Your task to perform on an android device: Empty the shopping cart on newegg.com. Add usb-a to usb-b to the cart on newegg.com Image 0: 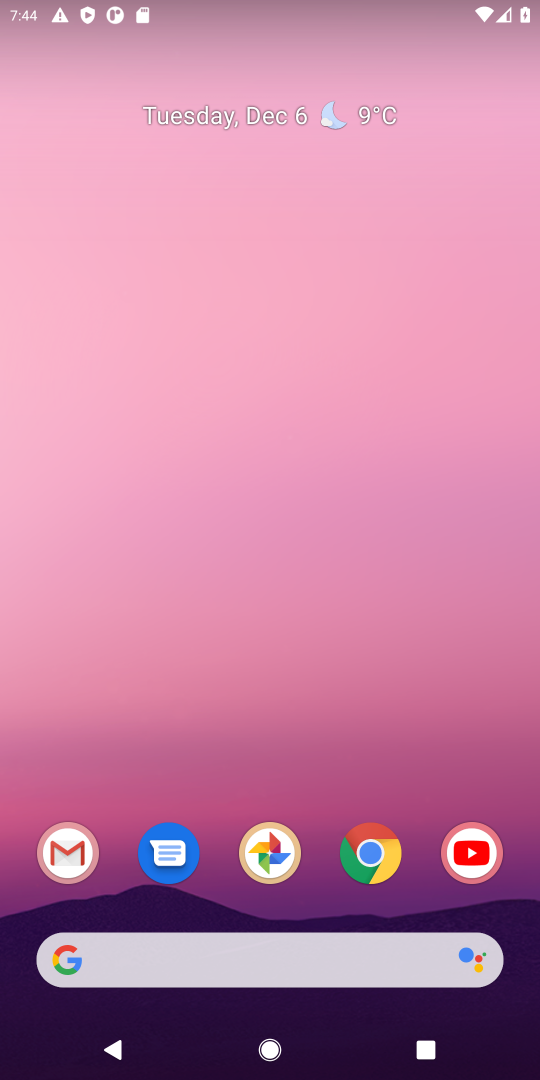
Step 0: click (368, 858)
Your task to perform on an android device: Empty the shopping cart on newegg.com. Add usb-a to usb-b to the cart on newegg.com Image 1: 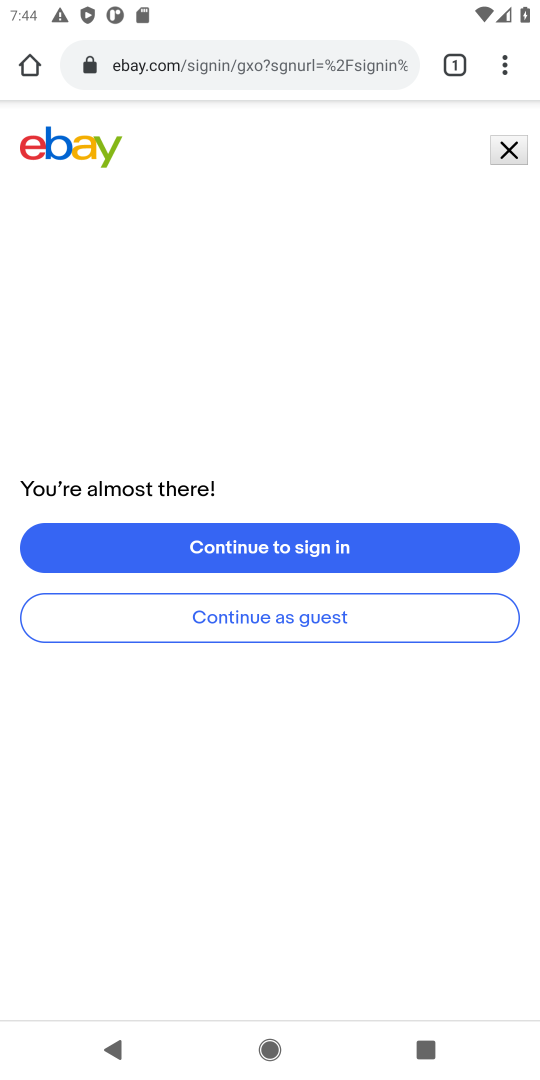
Step 1: click (295, 61)
Your task to perform on an android device: Empty the shopping cart on newegg.com. Add usb-a to usb-b to the cart on newegg.com Image 2: 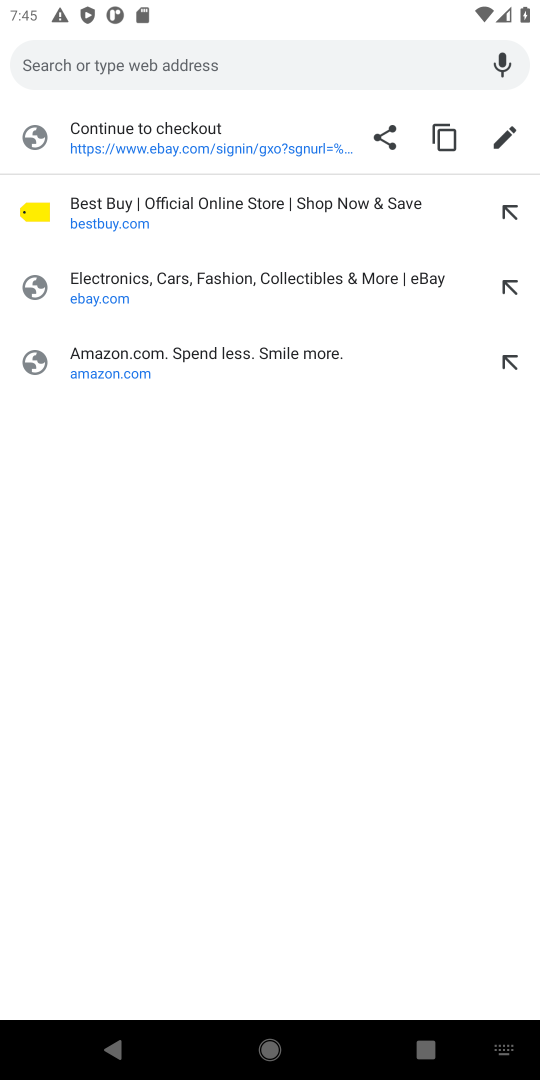
Step 2: type "newegg.com"
Your task to perform on an android device: Empty the shopping cart on newegg.com. Add usb-a to usb-b to the cart on newegg.com Image 3: 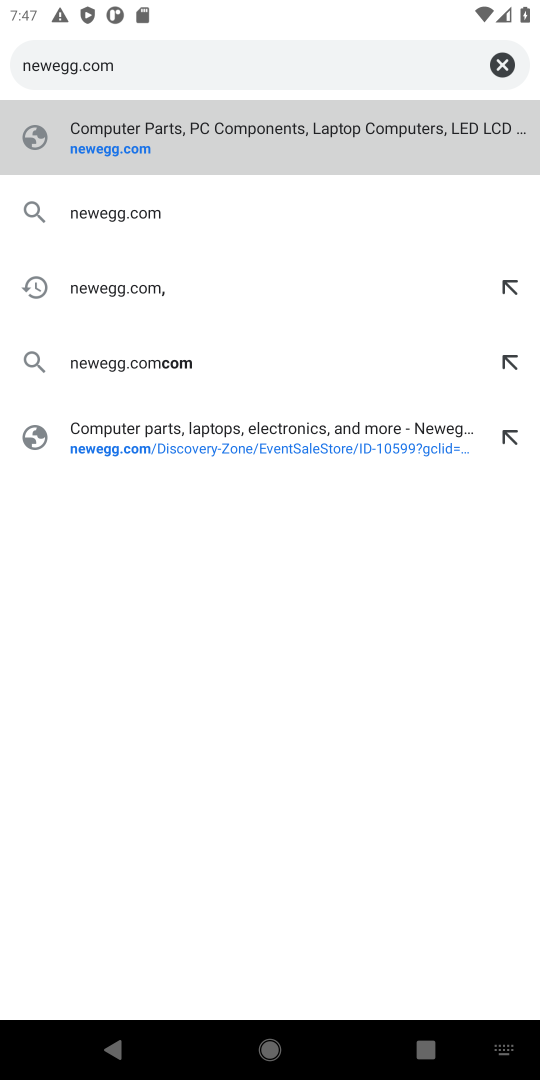
Step 3: click (136, 133)
Your task to perform on an android device: Empty the shopping cart on newegg.com. Add usb-a to usb-b to the cart on newegg.com Image 4: 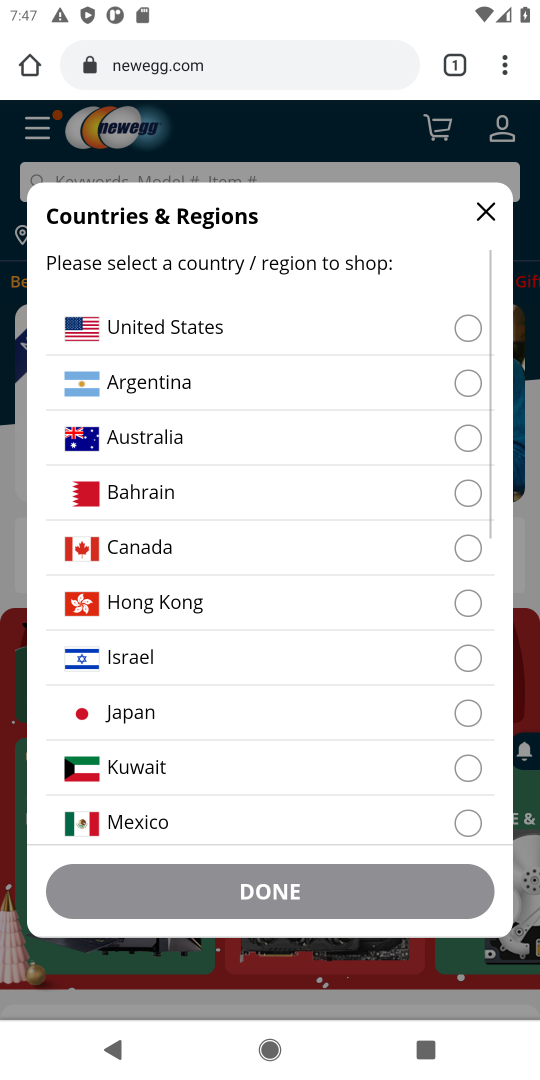
Step 4: click (481, 204)
Your task to perform on an android device: Empty the shopping cart on newegg.com. Add usb-a to usb-b to the cart on newegg.com Image 5: 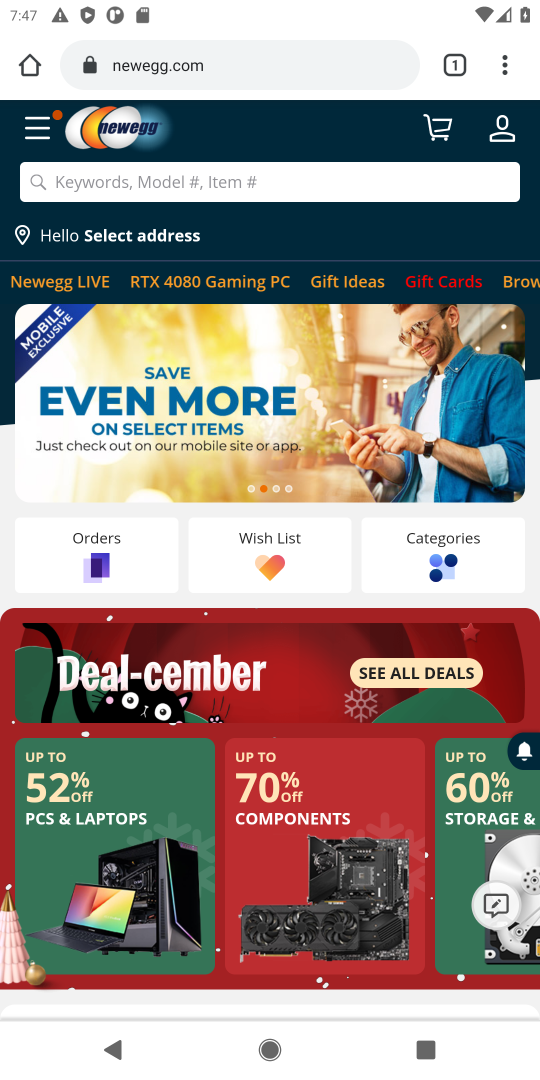
Step 5: click (497, 134)
Your task to perform on an android device: Empty the shopping cart on newegg.com. Add usb-a to usb-b to the cart on newegg.com Image 6: 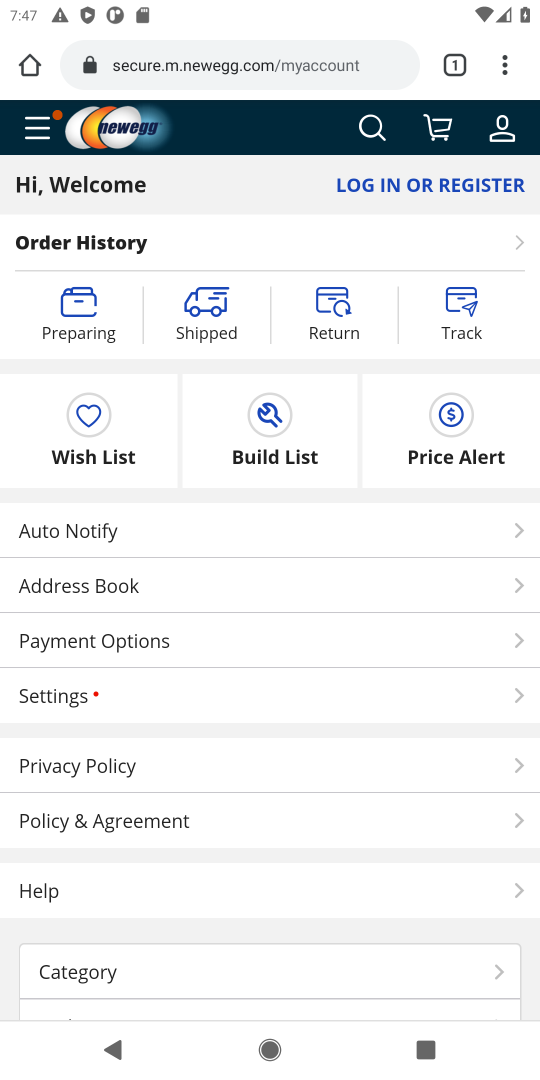
Step 6: click (372, 126)
Your task to perform on an android device: Empty the shopping cart on newegg.com. Add usb-a to usb-b to the cart on newegg.com Image 7: 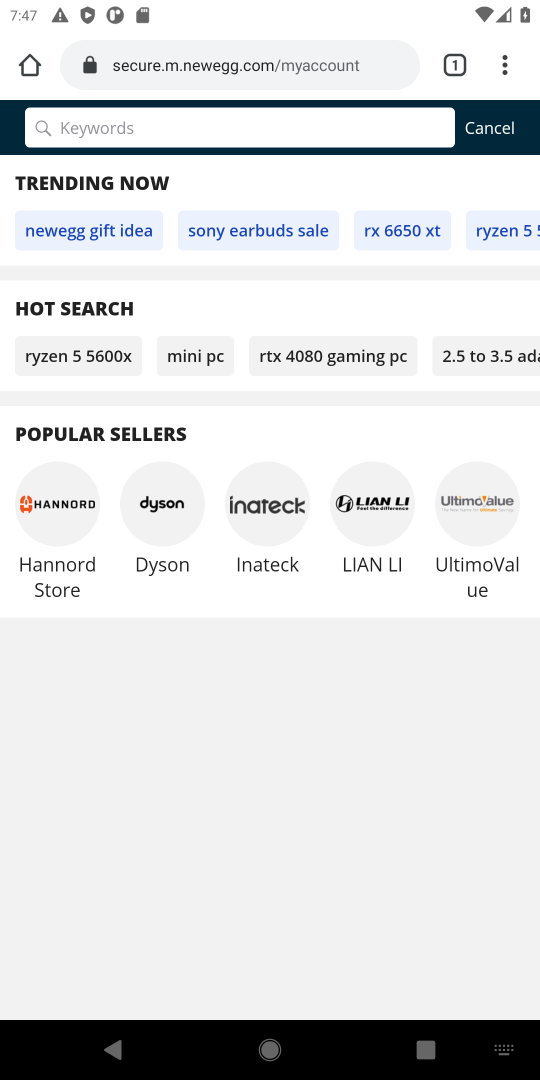
Step 7: type "usb-a"
Your task to perform on an android device: Empty the shopping cart on newegg.com. Add usb-a to usb-b to the cart on newegg.com Image 8: 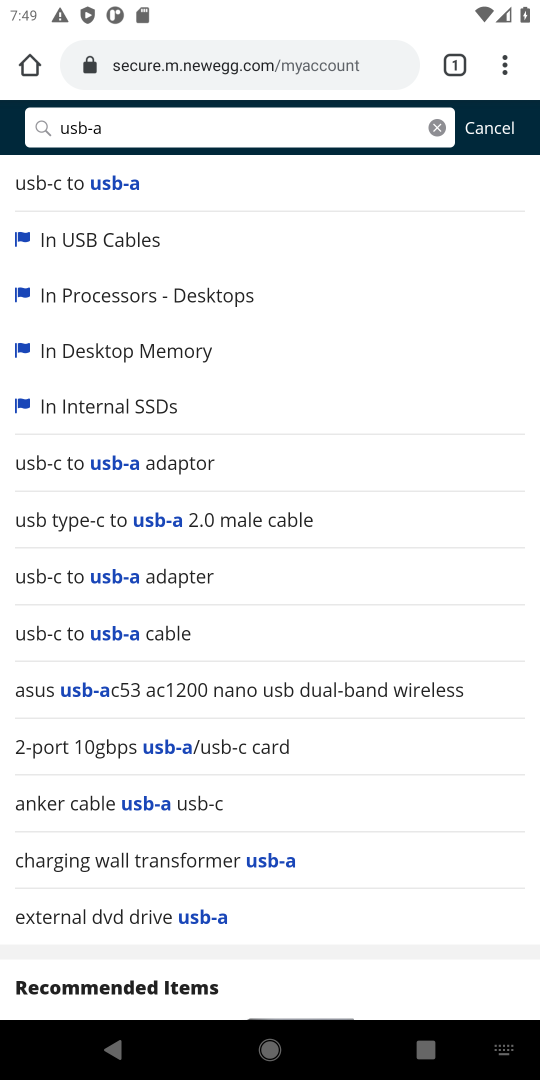
Step 8: click (62, 188)
Your task to perform on an android device: Empty the shopping cart on newegg.com. Add usb-a to usb-b to the cart on newegg.com Image 9: 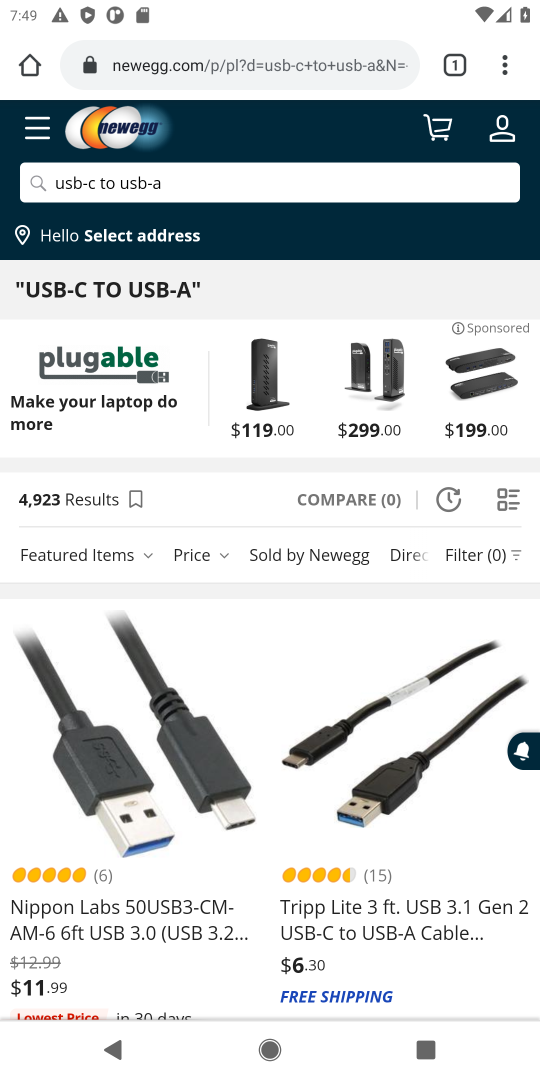
Step 9: click (141, 688)
Your task to perform on an android device: Empty the shopping cart on newegg.com. Add usb-a to usb-b to the cart on newegg.com Image 10: 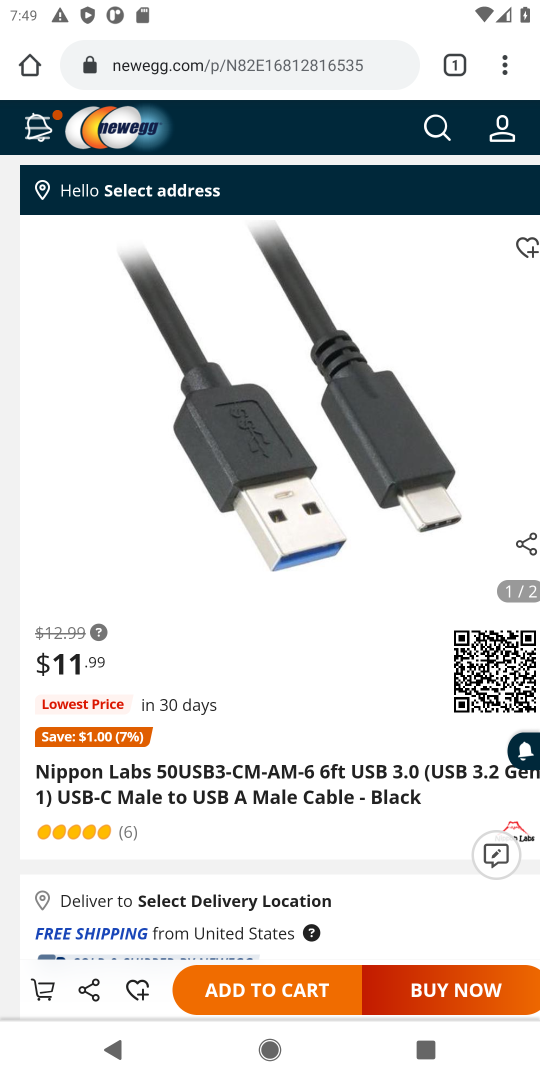
Step 10: click (266, 989)
Your task to perform on an android device: Empty the shopping cart on newegg.com. Add usb-a to usb-b to the cart on newegg.com Image 11: 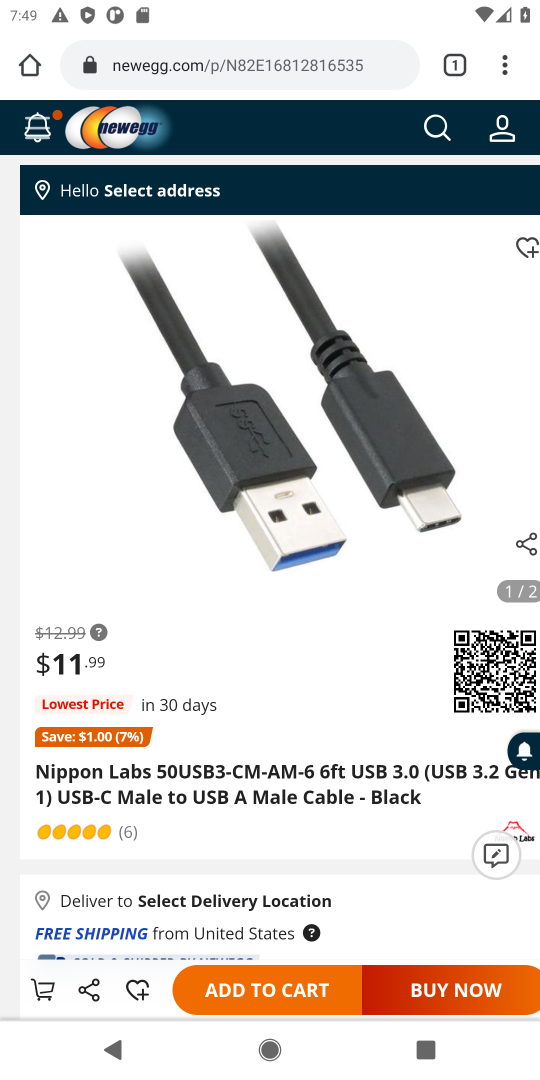
Step 11: task complete